Your task to perform on an android device: uninstall "Instagram" Image 0: 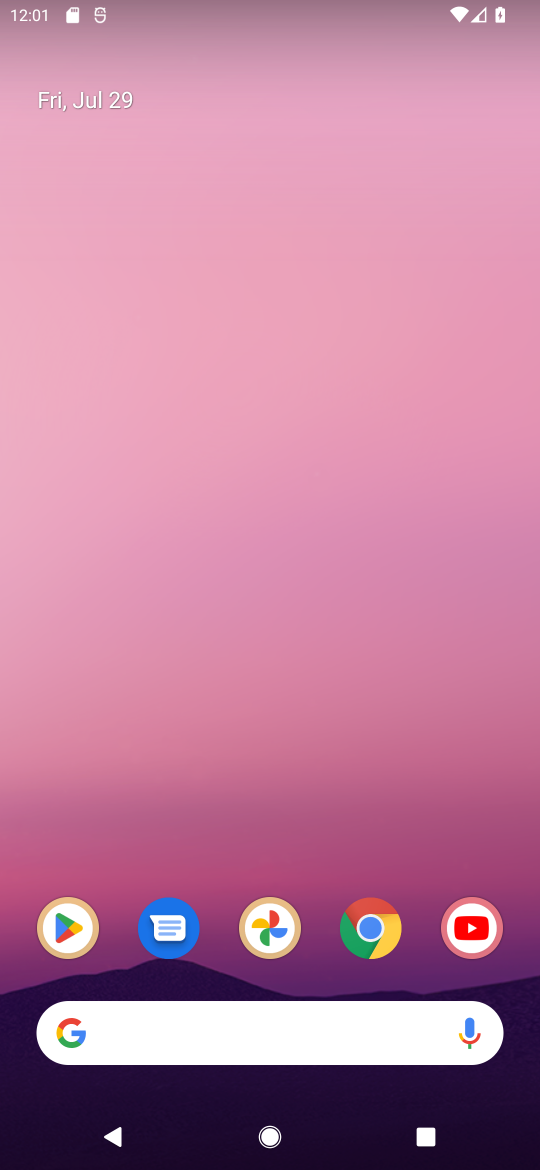
Step 0: drag from (382, 852) to (308, 1)
Your task to perform on an android device: uninstall "Instagram" Image 1: 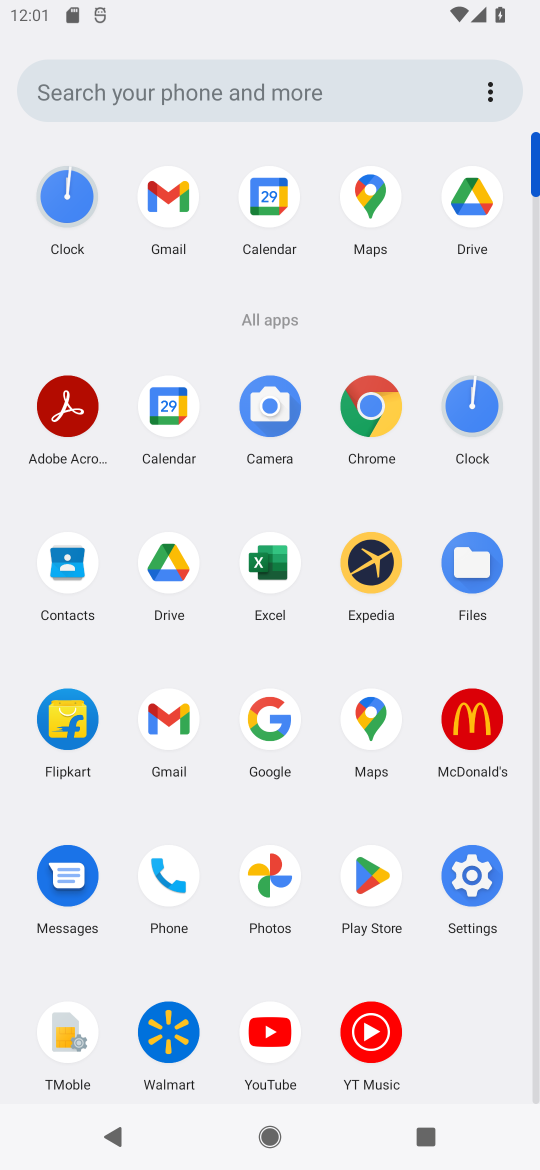
Step 1: click (362, 880)
Your task to perform on an android device: uninstall "Instagram" Image 2: 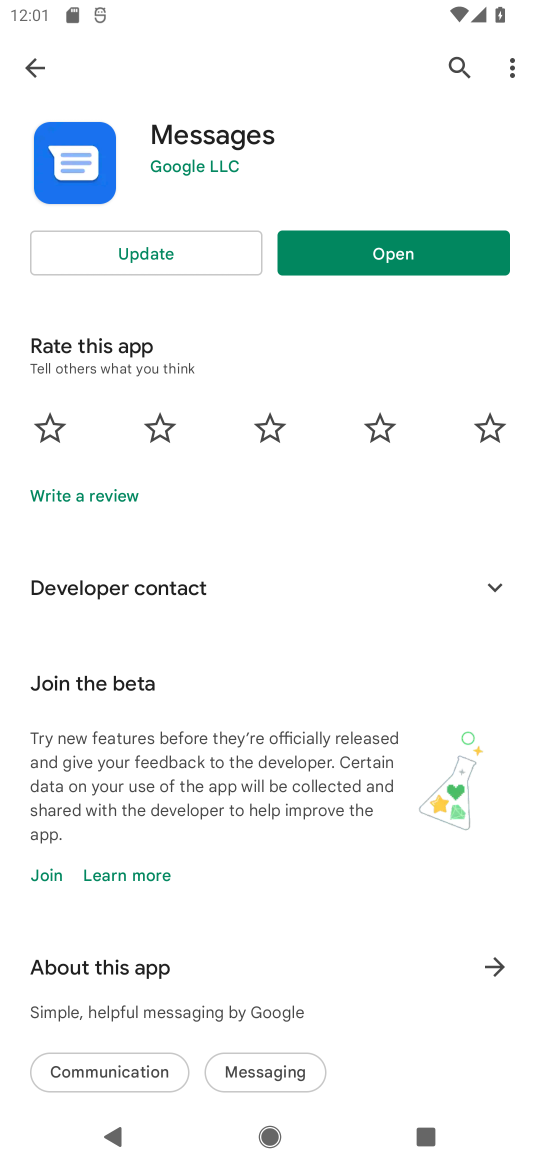
Step 2: click (446, 56)
Your task to perform on an android device: uninstall "Instagram" Image 3: 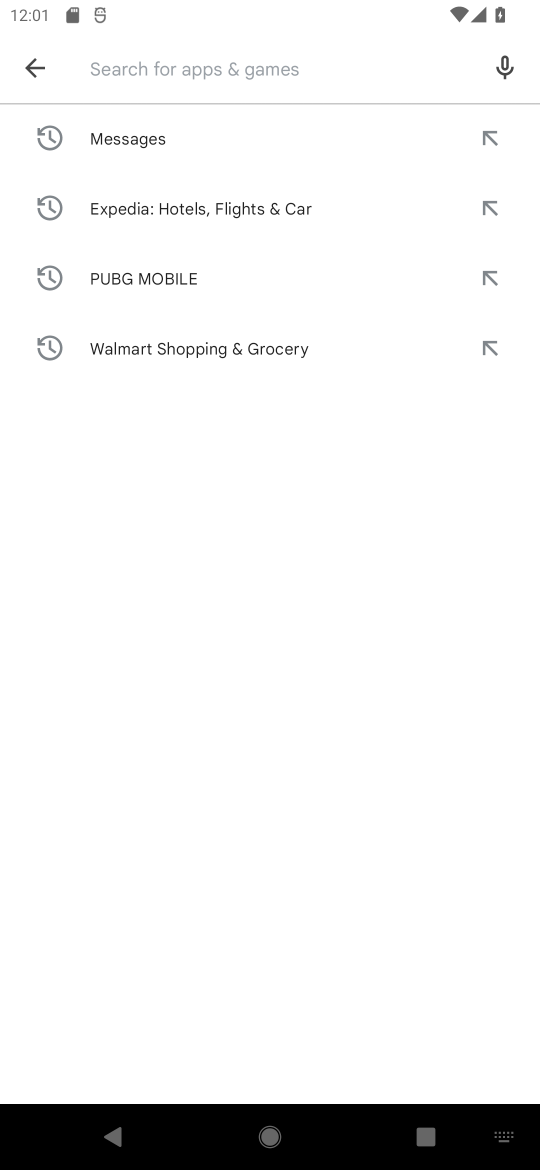
Step 3: type "Instagram"
Your task to perform on an android device: uninstall "Instagram" Image 4: 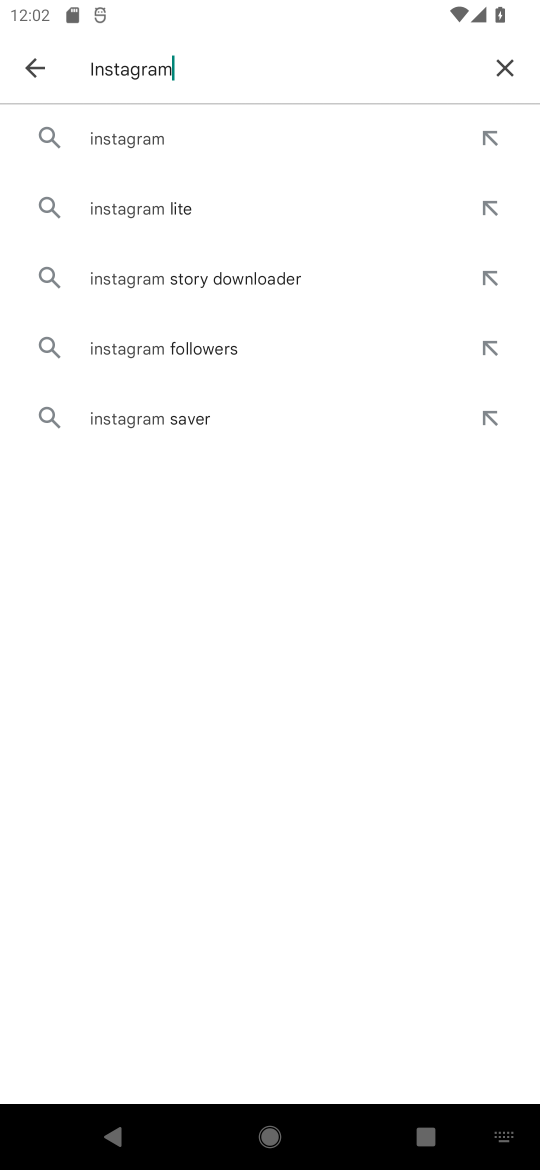
Step 4: press enter
Your task to perform on an android device: uninstall "Instagram" Image 5: 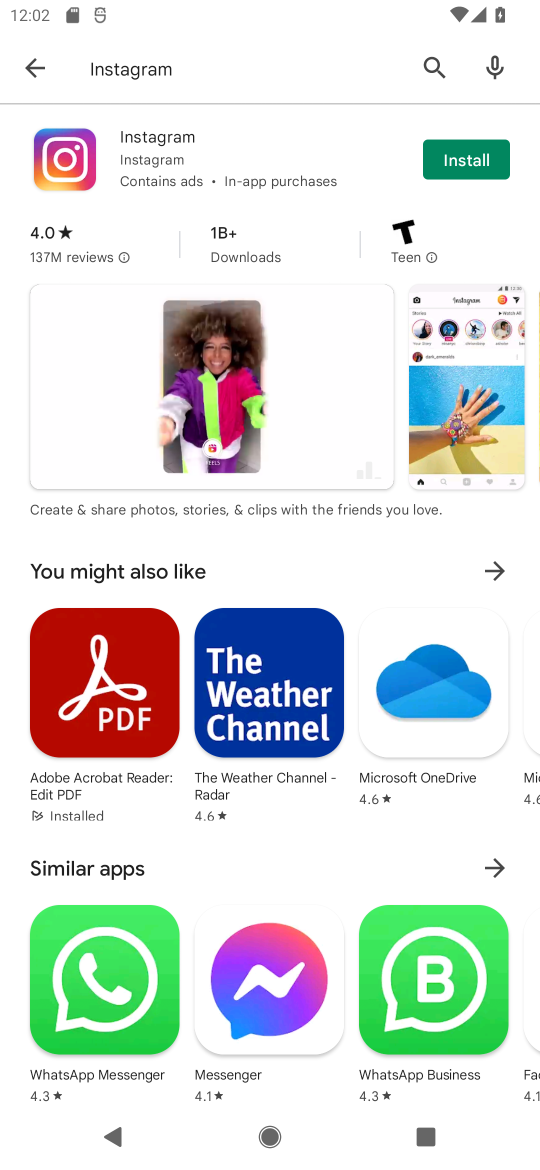
Step 5: task complete